Your task to perform on an android device: Search for the best rated drill on Lowes.com Image 0: 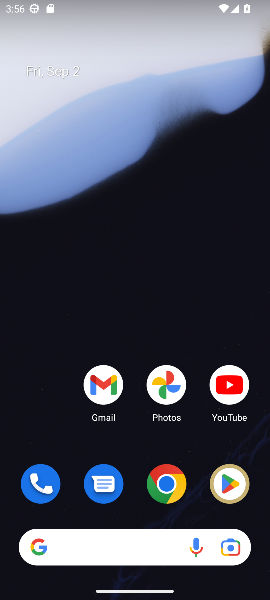
Step 0: click (157, 480)
Your task to perform on an android device: Search for the best rated drill on Lowes.com Image 1: 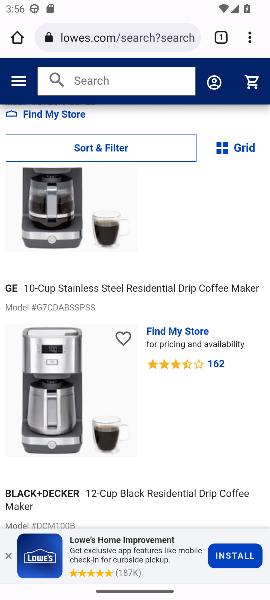
Step 1: click (122, 76)
Your task to perform on an android device: Search for the best rated drill on Lowes.com Image 2: 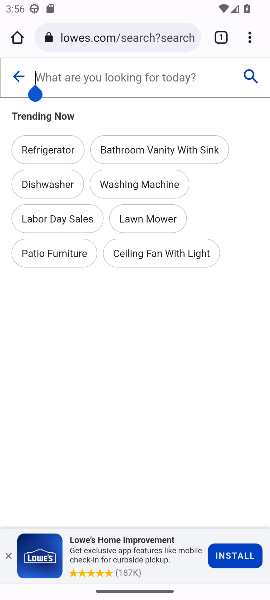
Step 2: type " drill"
Your task to perform on an android device: Search for the best rated drill on Lowes.com Image 3: 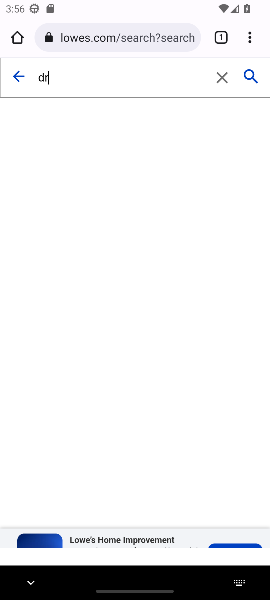
Step 3: press enter
Your task to perform on an android device: Search for the best rated drill on Lowes.com Image 4: 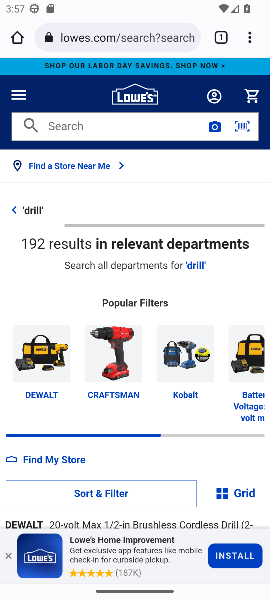
Step 4: task complete